Your task to perform on an android device: Open Maps and search for coffee Image 0: 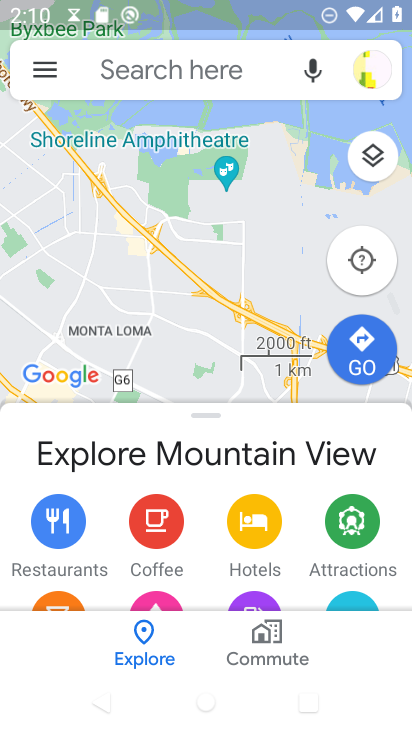
Step 0: press home button
Your task to perform on an android device: Open Maps and search for coffee Image 1: 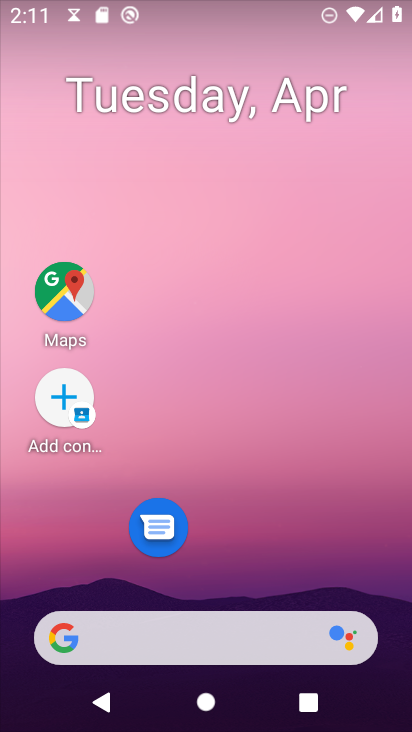
Step 1: click (59, 298)
Your task to perform on an android device: Open Maps and search for coffee Image 2: 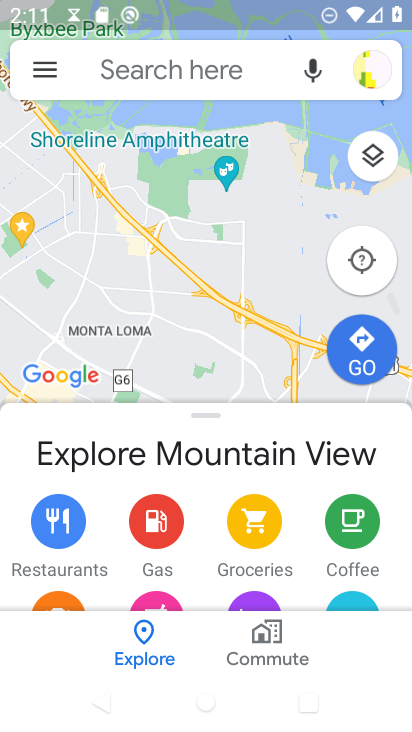
Step 2: click (137, 76)
Your task to perform on an android device: Open Maps and search for coffee Image 3: 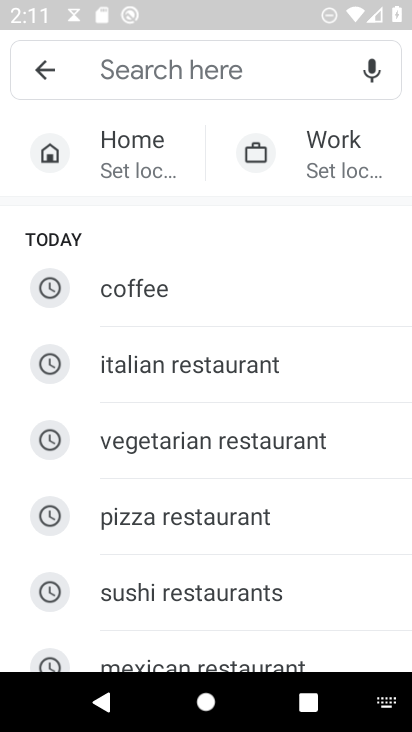
Step 3: type "coffee"
Your task to perform on an android device: Open Maps and search for coffee Image 4: 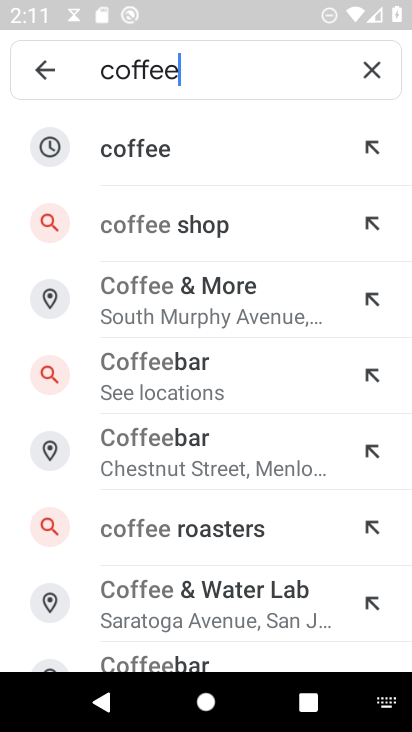
Step 4: click (154, 145)
Your task to perform on an android device: Open Maps and search for coffee Image 5: 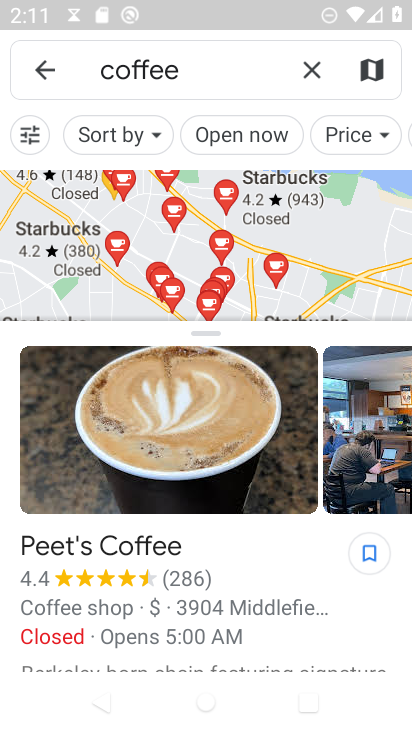
Step 5: task complete